Your task to perform on an android device: Open Yahoo.com Image 0: 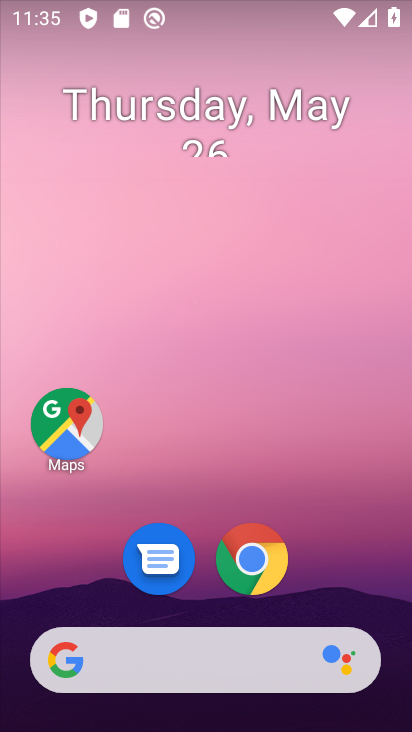
Step 0: click (236, 555)
Your task to perform on an android device: Open Yahoo.com Image 1: 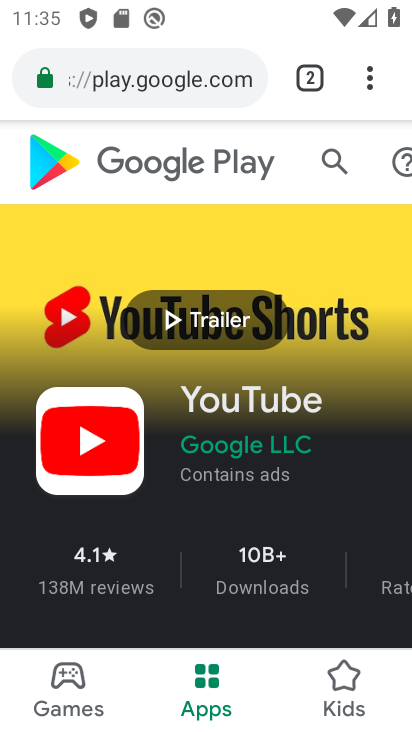
Step 1: click (210, 81)
Your task to perform on an android device: Open Yahoo.com Image 2: 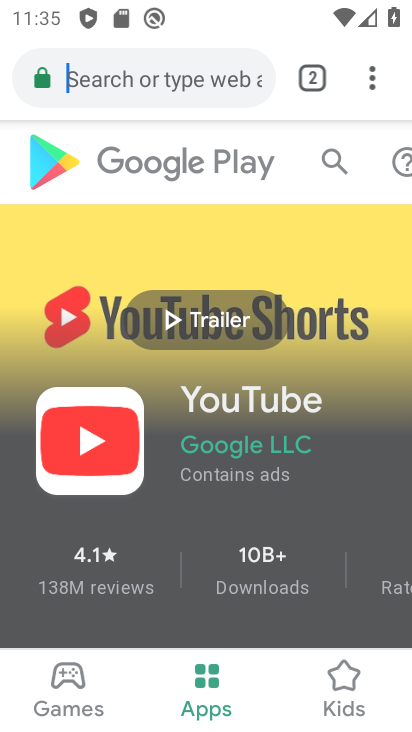
Step 2: click (210, 81)
Your task to perform on an android device: Open Yahoo.com Image 3: 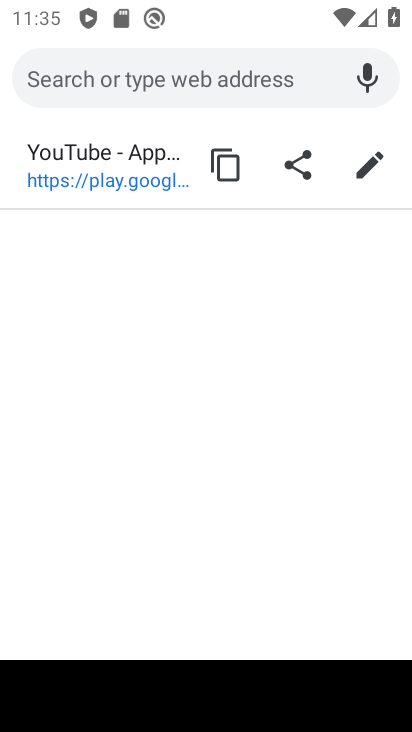
Step 3: type "yahoo.com"
Your task to perform on an android device: Open Yahoo.com Image 4: 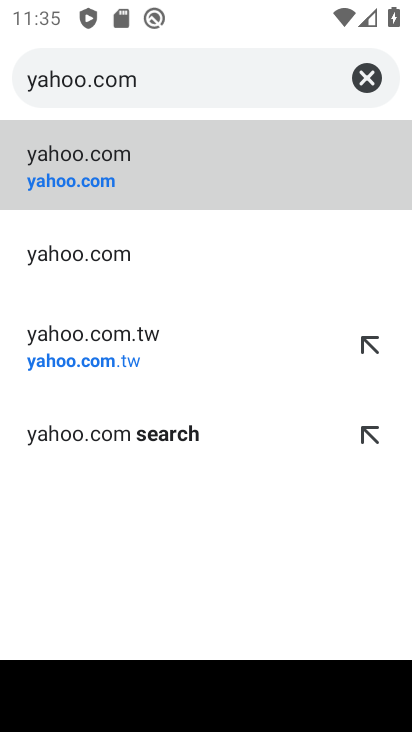
Step 4: click (163, 145)
Your task to perform on an android device: Open Yahoo.com Image 5: 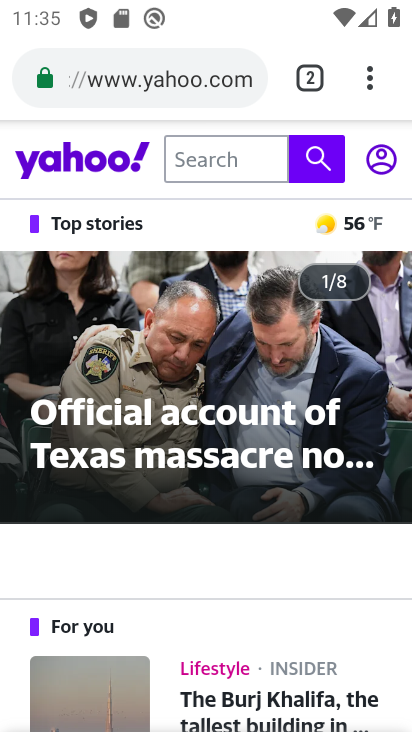
Step 5: task complete